Your task to perform on an android device: open app "Mercado Libre" (install if not already installed) Image 0: 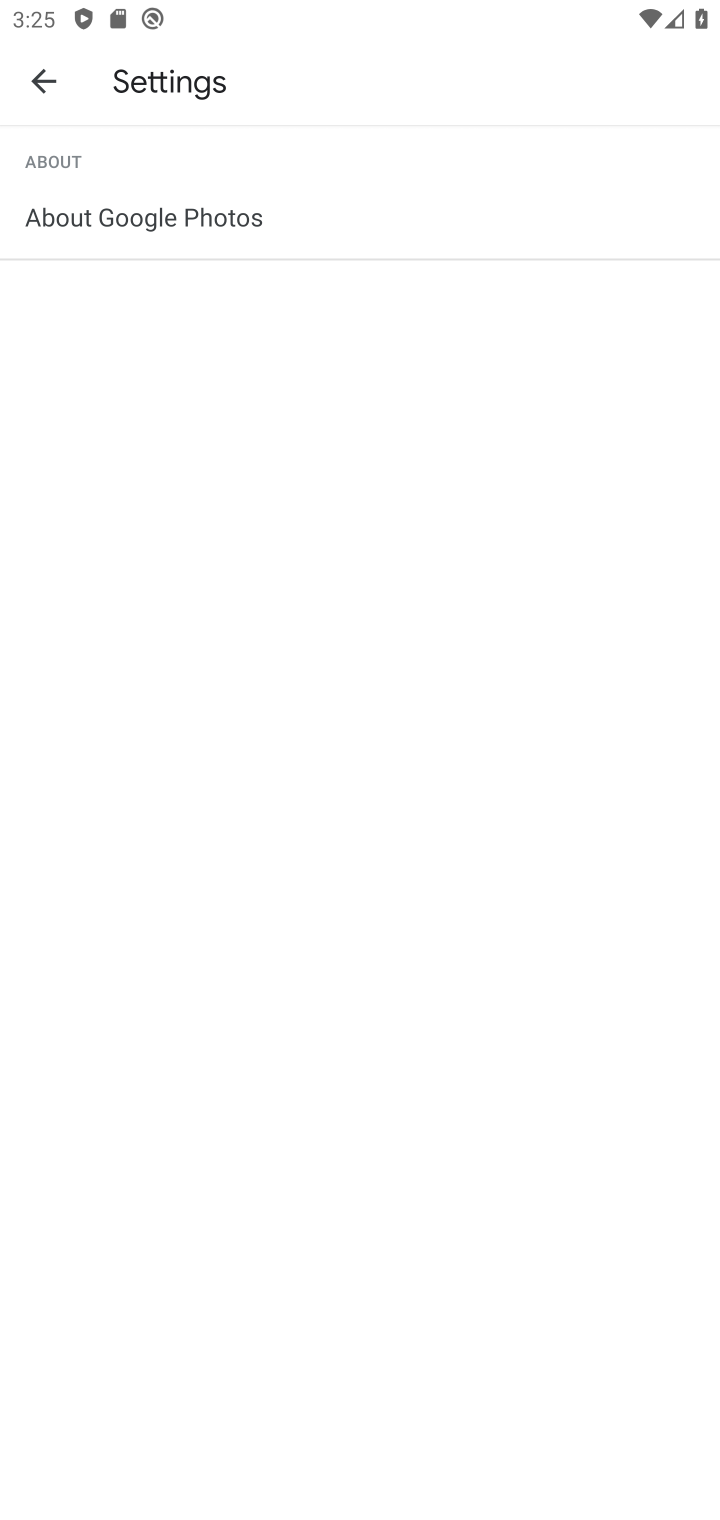
Step 0: press home button
Your task to perform on an android device: open app "Mercado Libre" (install if not already installed) Image 1: 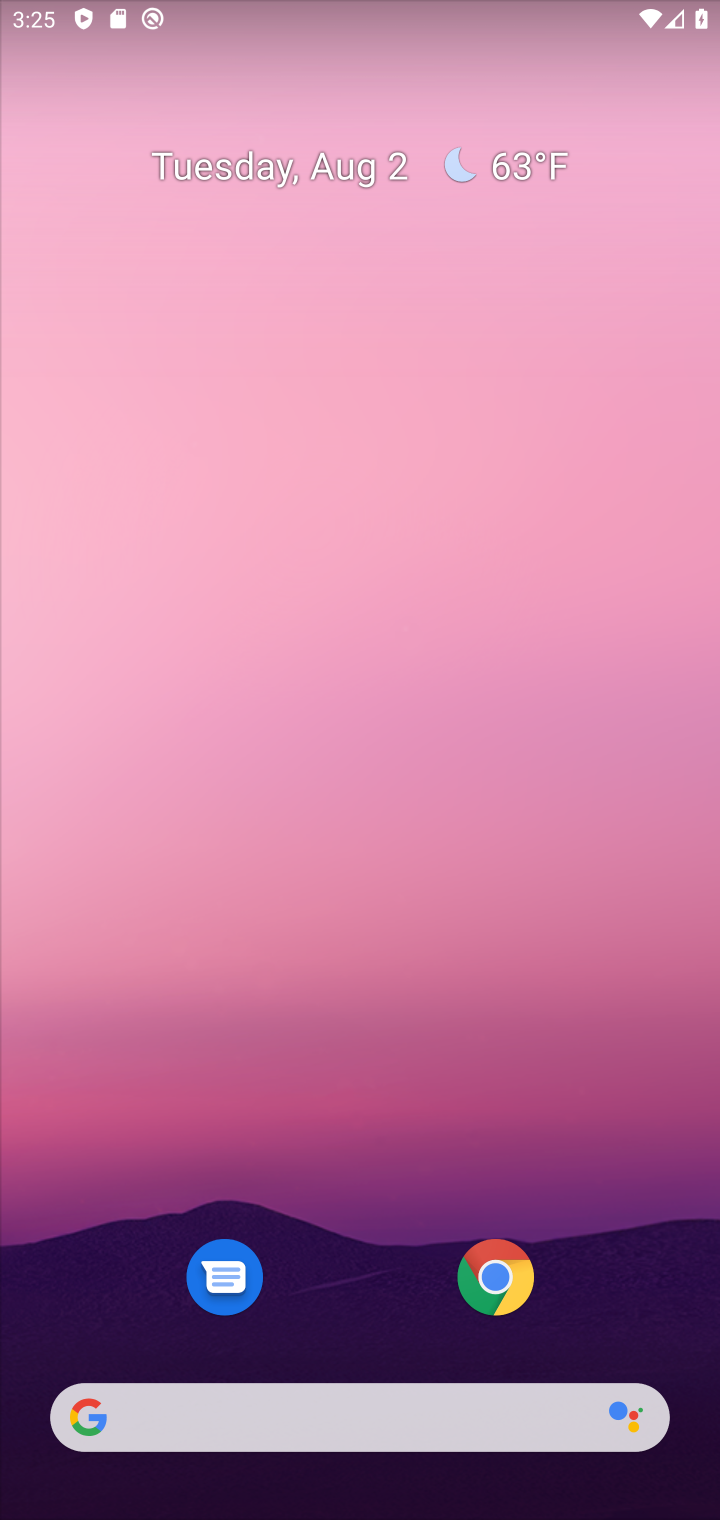
Step 1: drag from (633, 1222) to (600, 45)
Your task to perform on an android device: open app "Mercado Libre" (install if not already installed) Image 2: 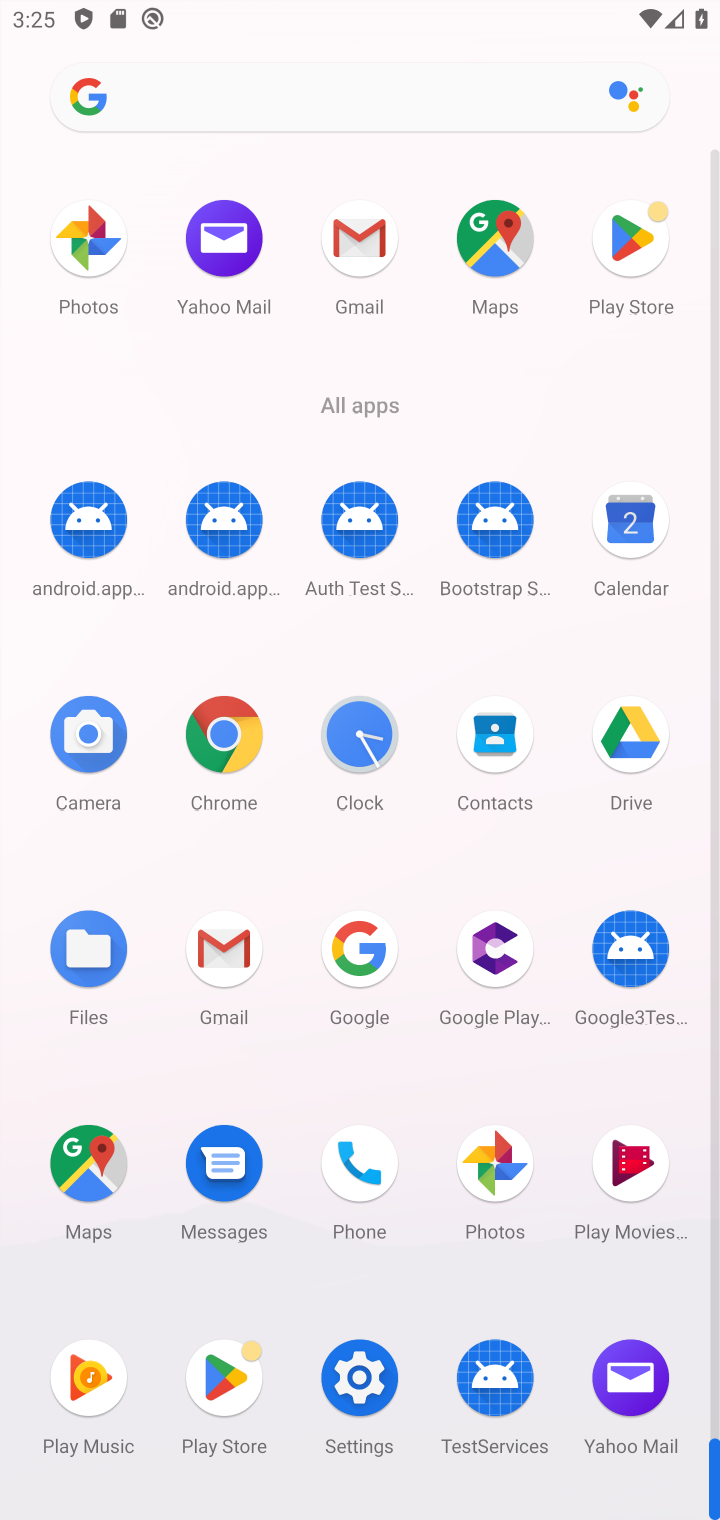
Step 2: click (221, 1352)
Your task to perform on an android device: open app "Mercado Libre" (install if not already installed) Image 3: 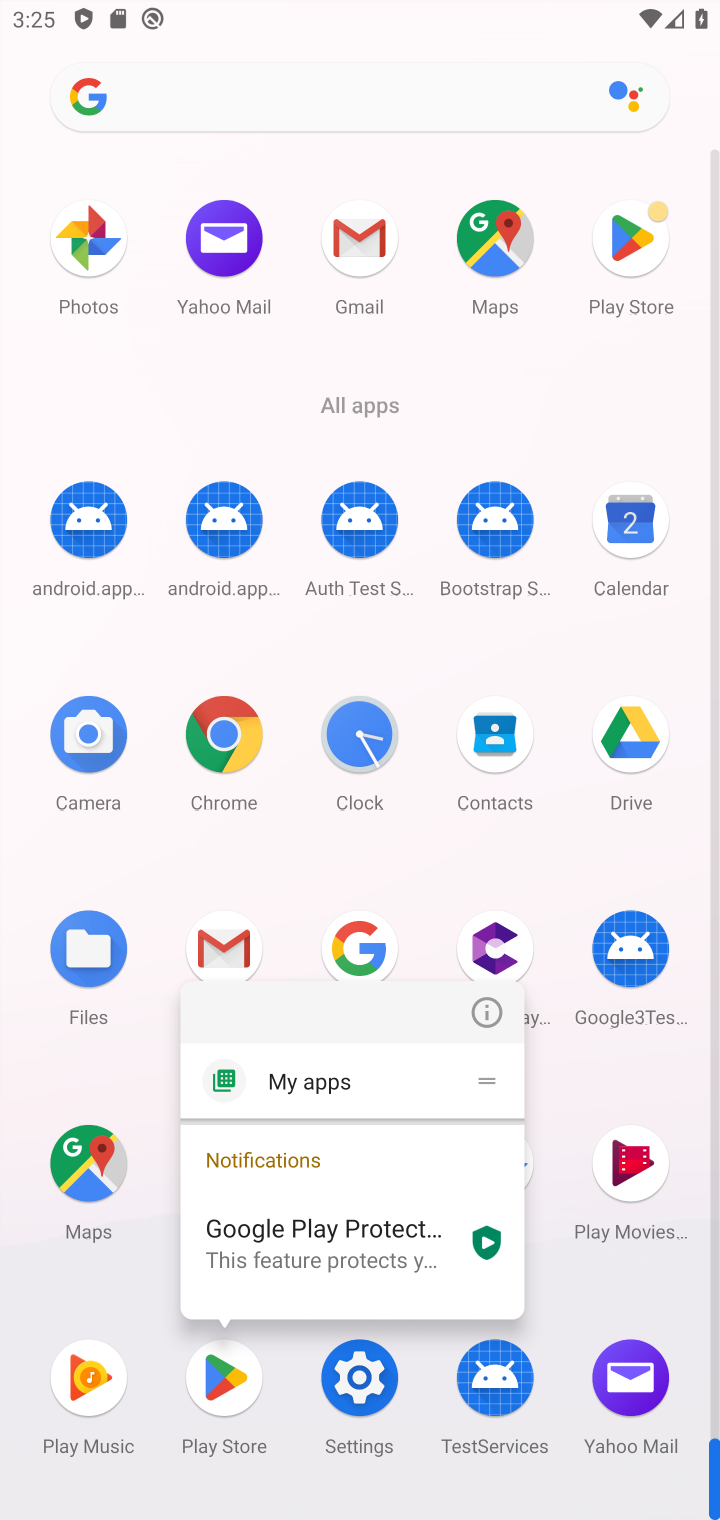
Step 3: click (214, 1392)
Your task to perform on an android device: open app "Mercado Libre" (install if not already installed) Image 4: 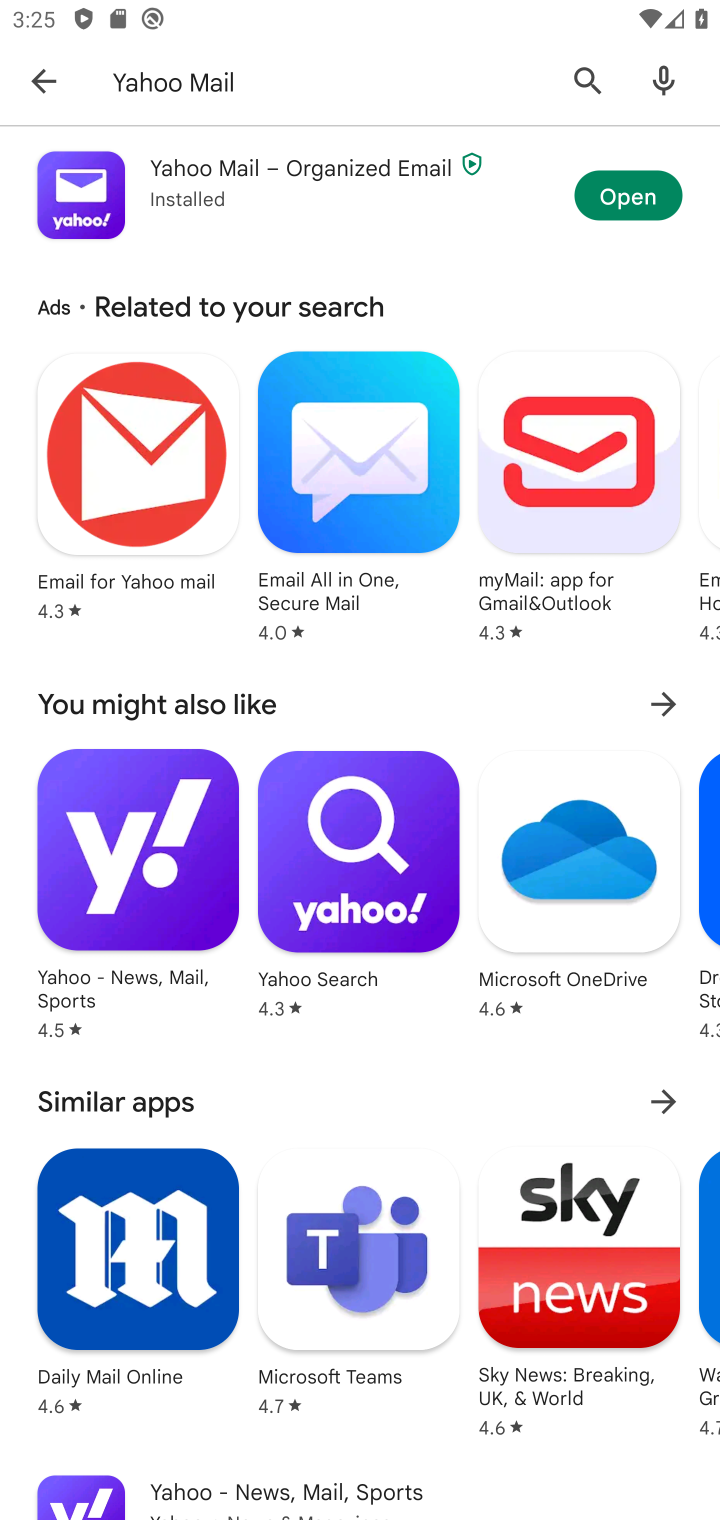
Step 4: click (327, 73)
Your task to perform on an android device: open app "Mercado Libre" (install if not already installed) Image 5: 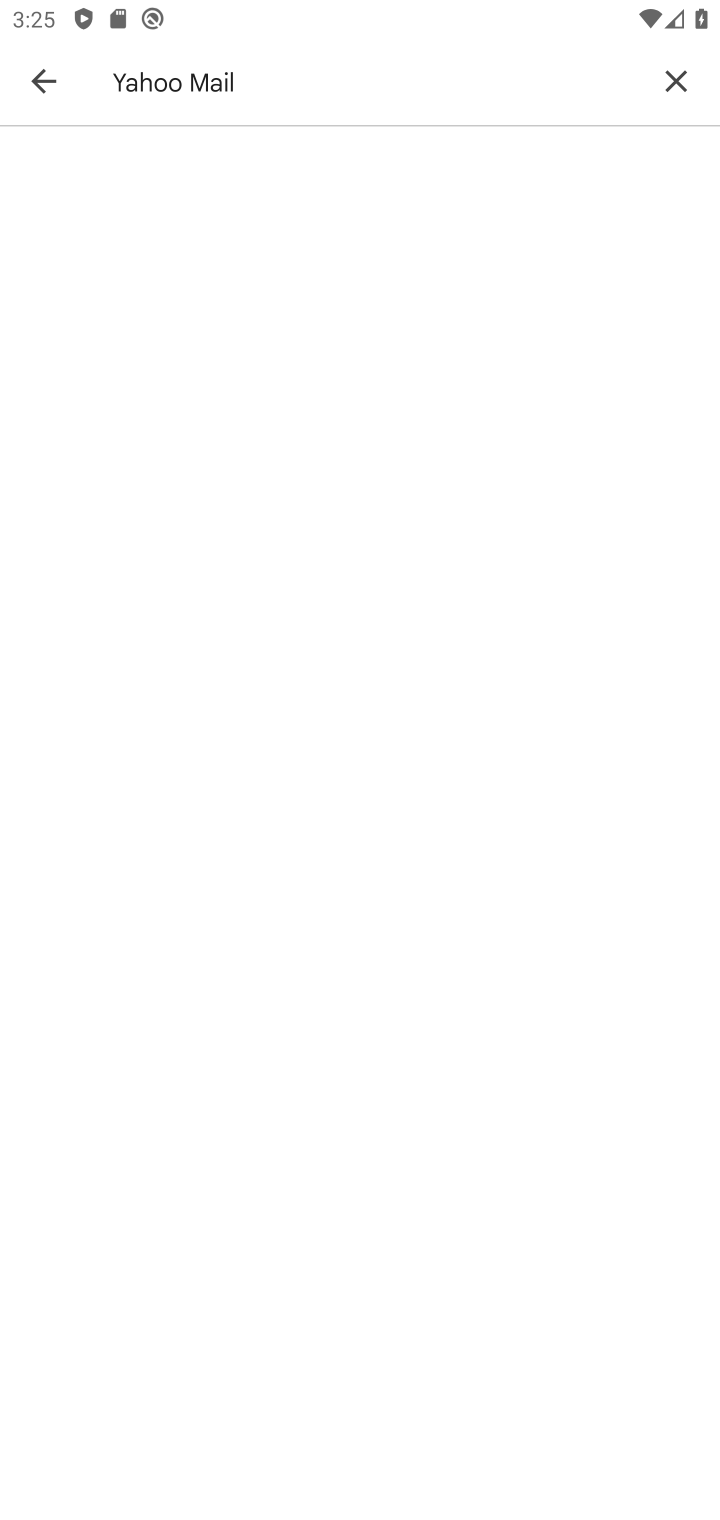
Step 5: click (668, 74)
Your task to perform on an android device: open app "Mercado Libre" (install if not already installed) Image 6: 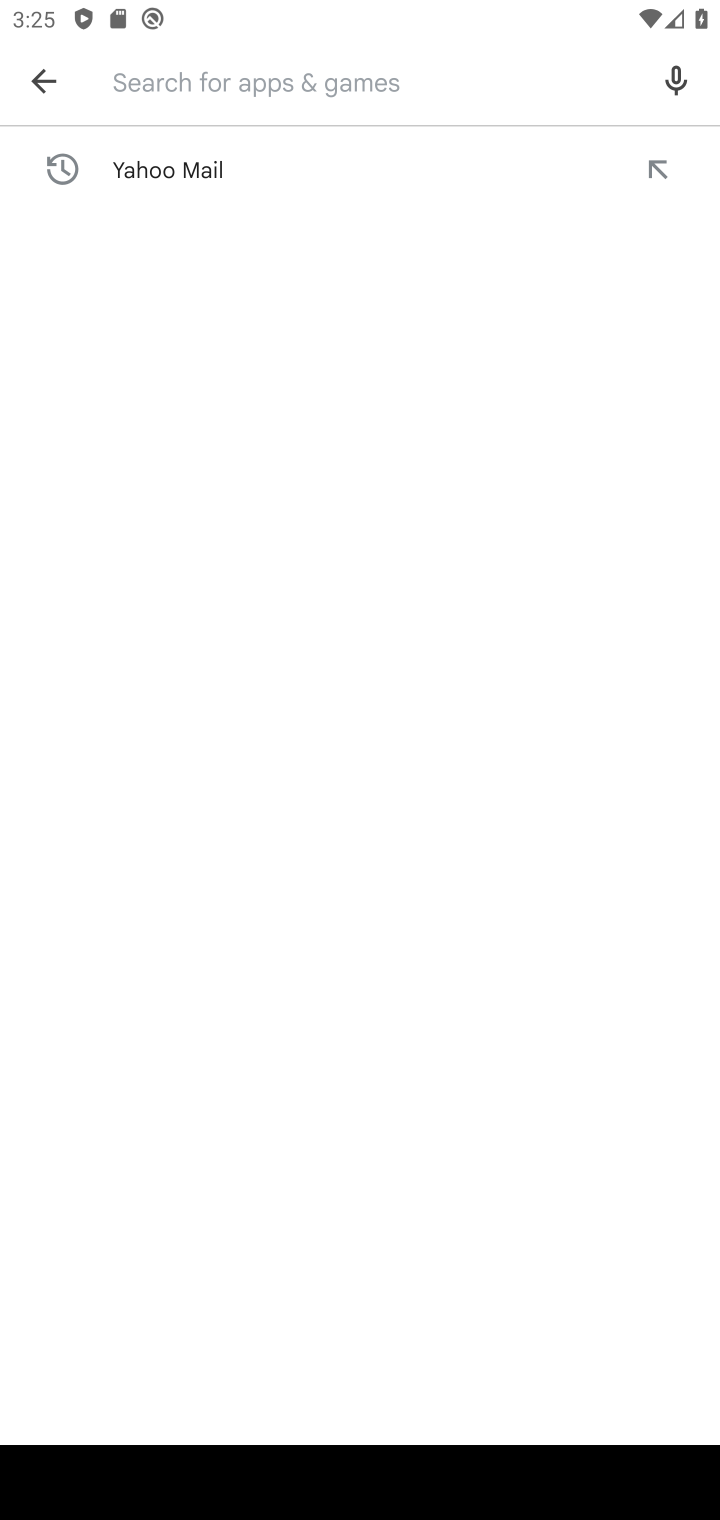
Step 6: type "Mercado Libre"
Your task to perform on an android device: open app "Mercado Libre" (install if not already installed) Image 7: 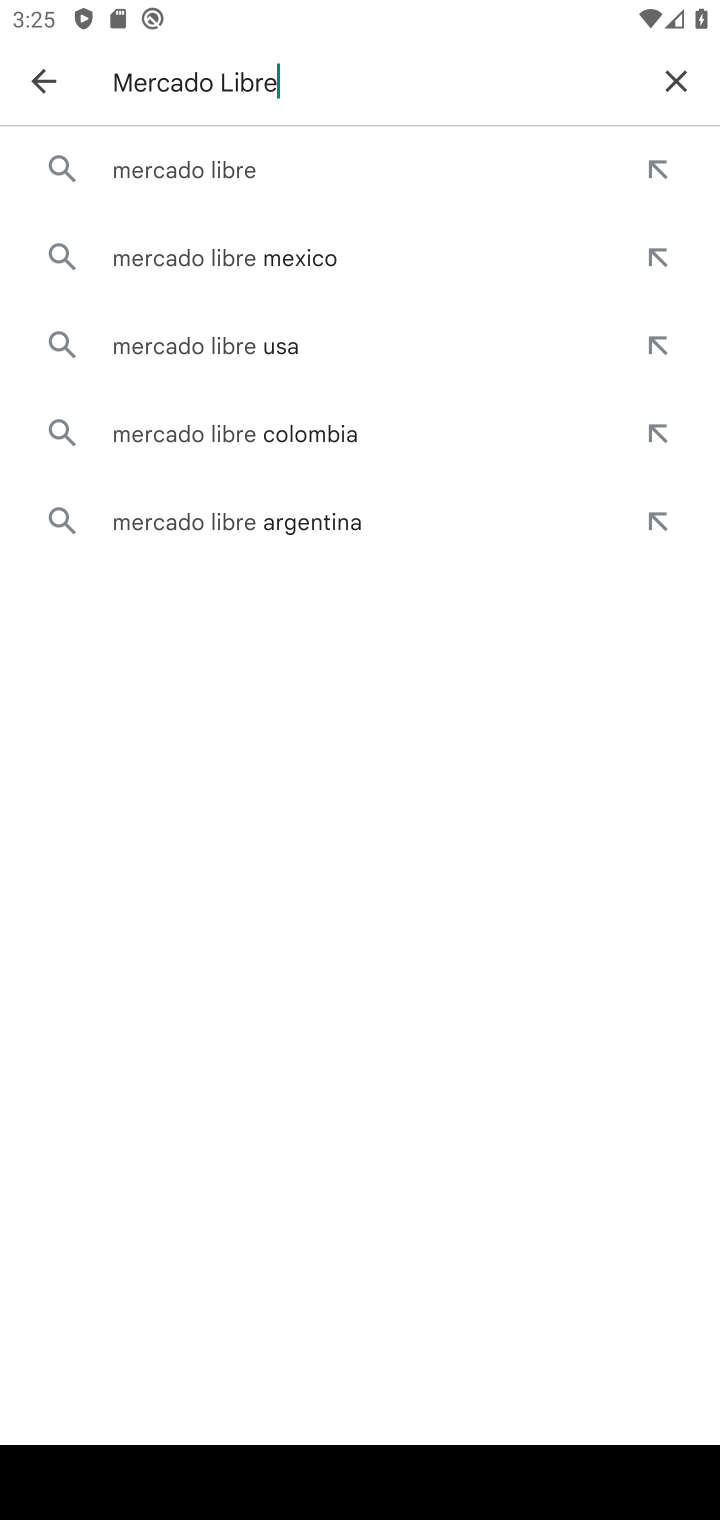
Step 7: press enter
Your task to perform on an android device: open app "Mercado Libre" (install if not already installed) Image 8: 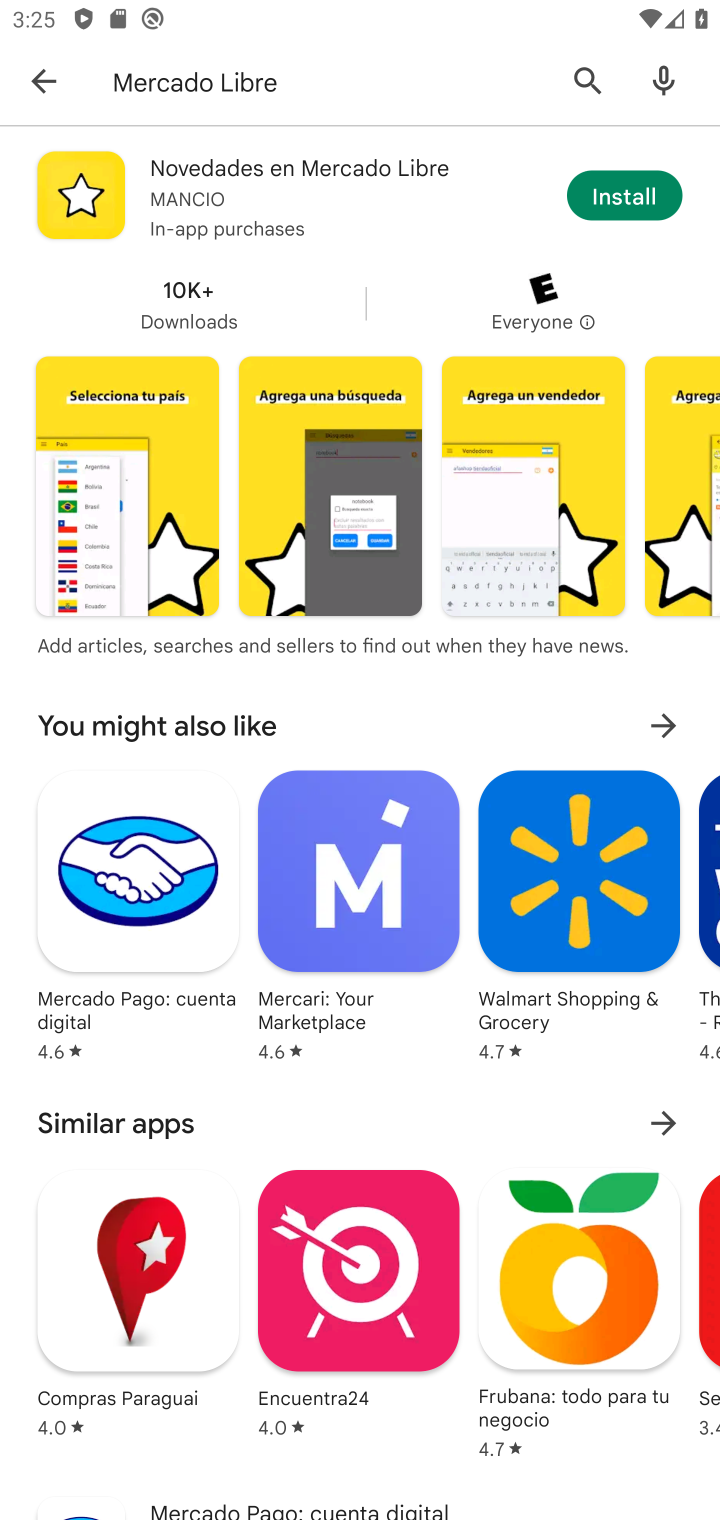
Step 8: click (614, 193)
Your task to perform on an android device: open app "Mercado Libre" (install if not already installed) Image 9: 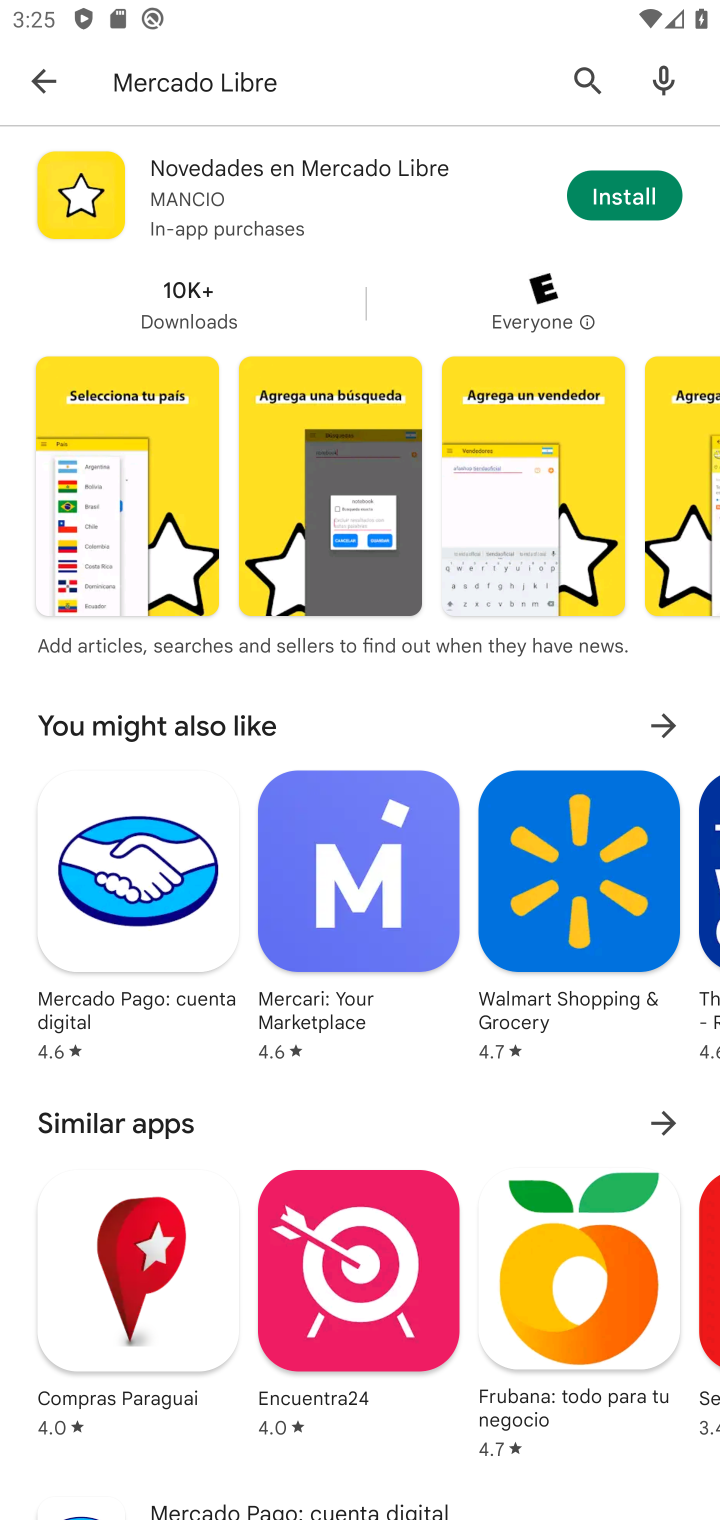
Step 9: click (614, 193)
Your task to perform on an android device: open app "Mercado Libre" (install if not already installed) Image 10: 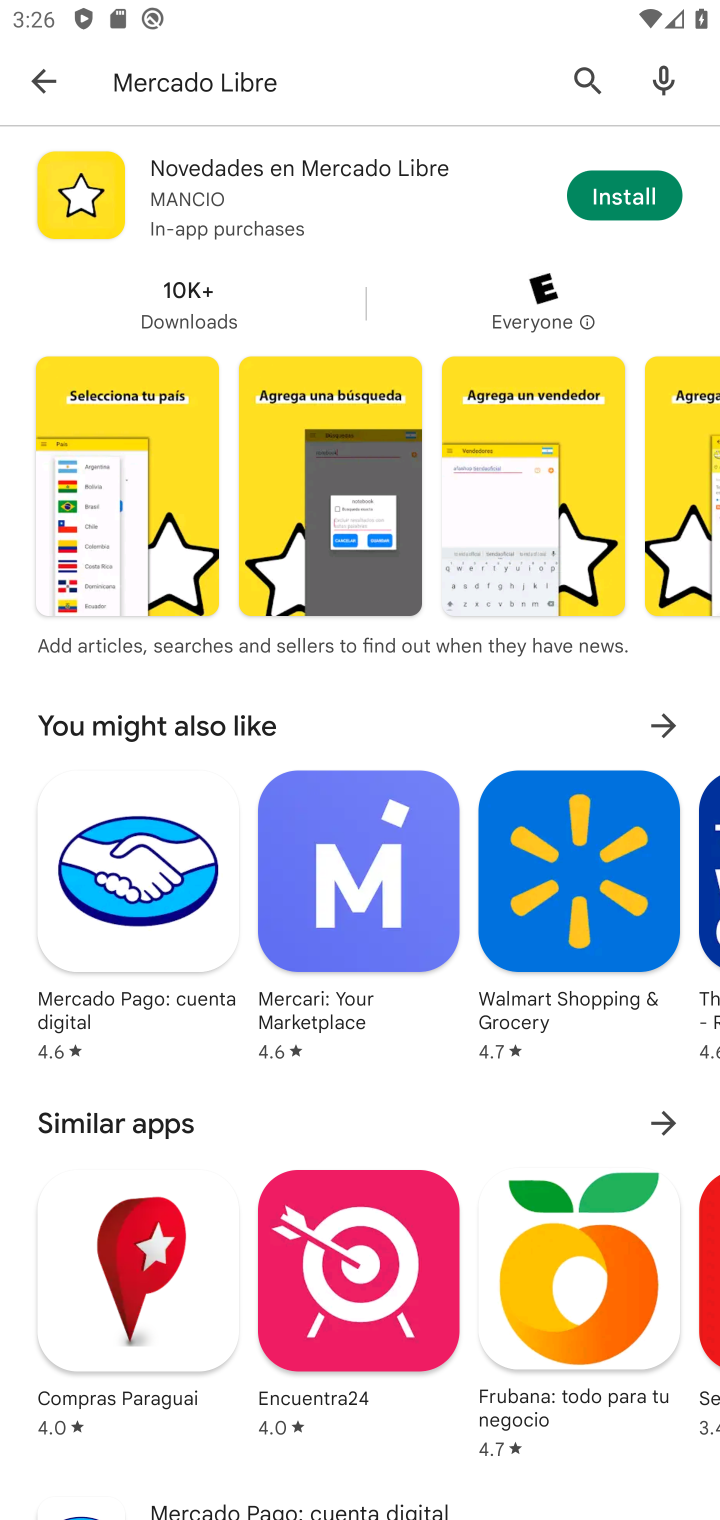
Step 10: click (621, 192)
Your task to perform on an android device: open app "Mercado Libre" (install if not already installed) Image 11: 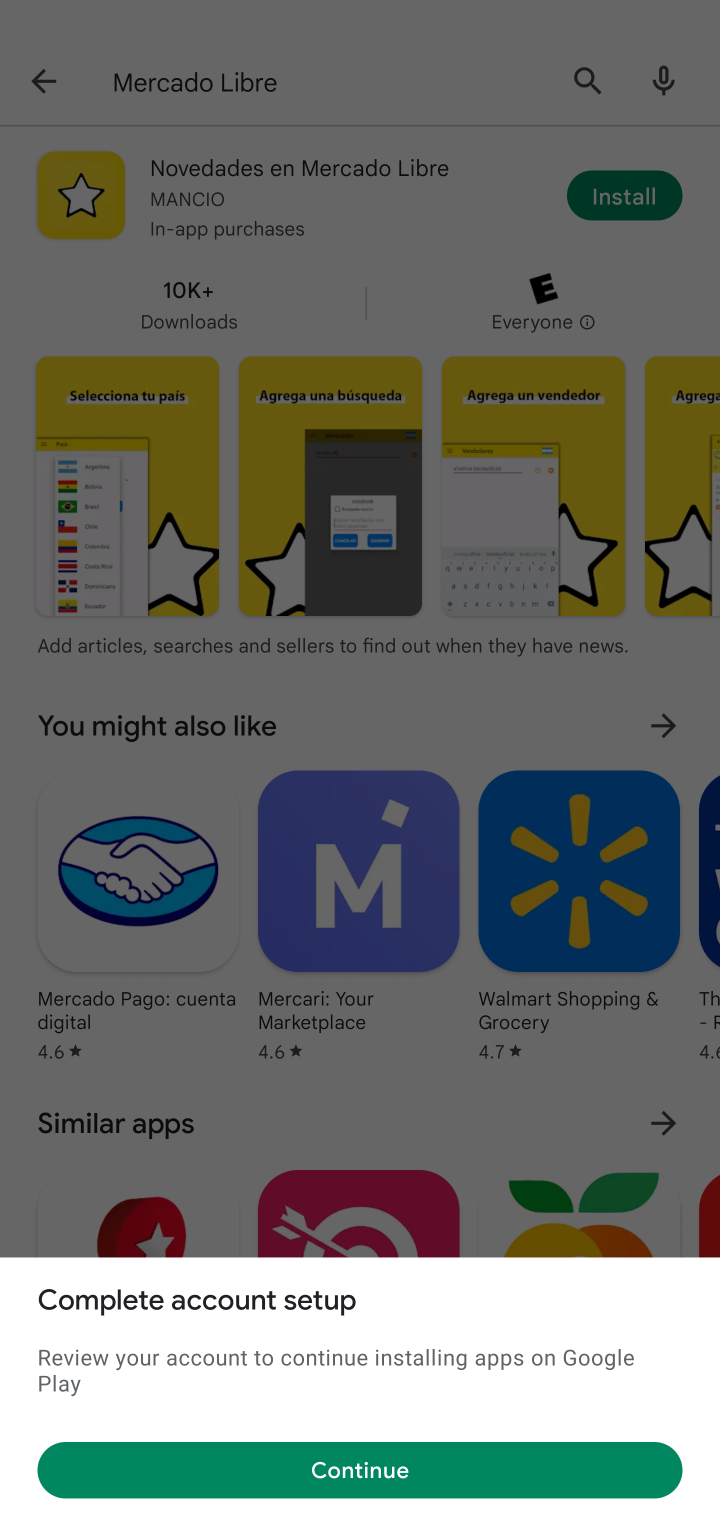
Step 11: click (518, 1479)
Your task to perform on an android device: open app "Mercado Libre" (install if not already installed) Image 12: 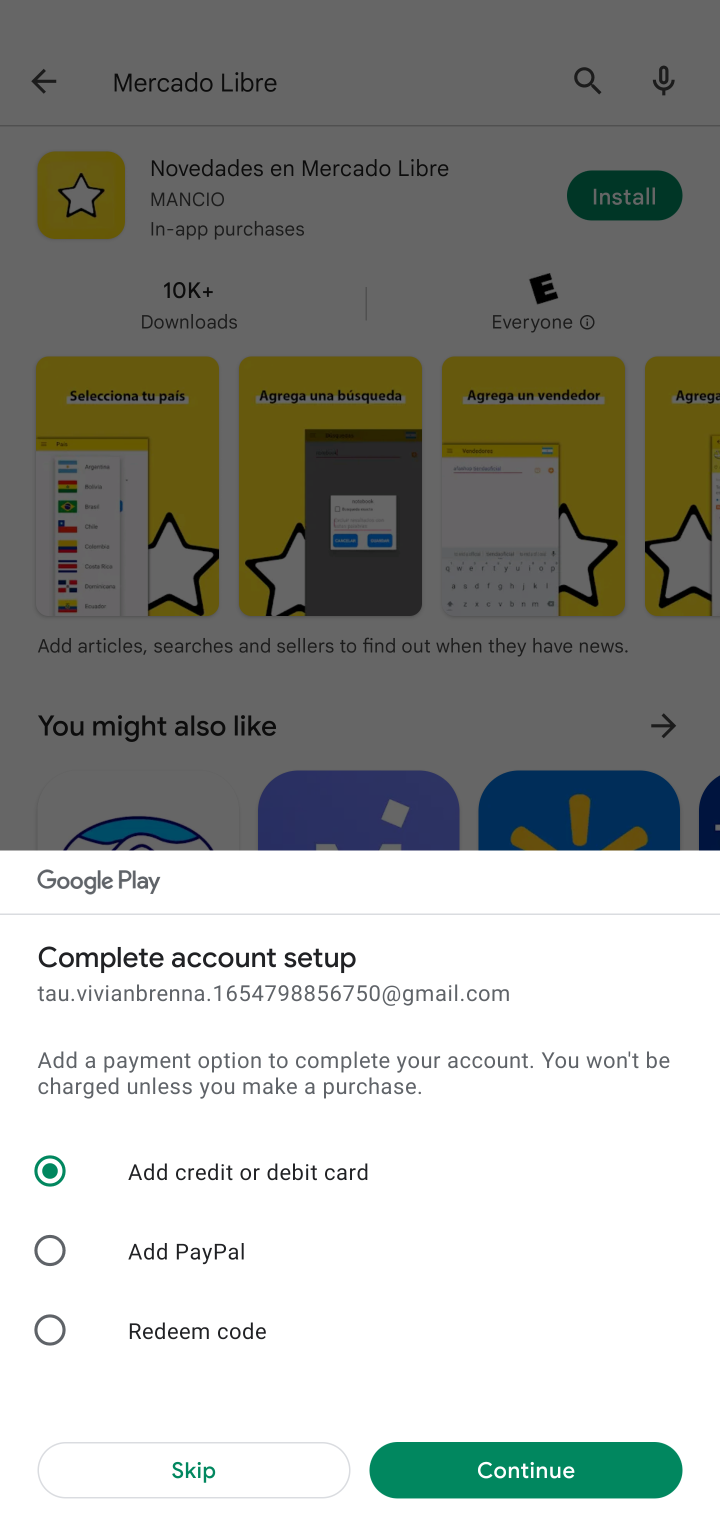
Step 12: click (228, 1465)
Your task to perform on an android device: open app "Mercado Libre" (install if not already installed) Image 13: 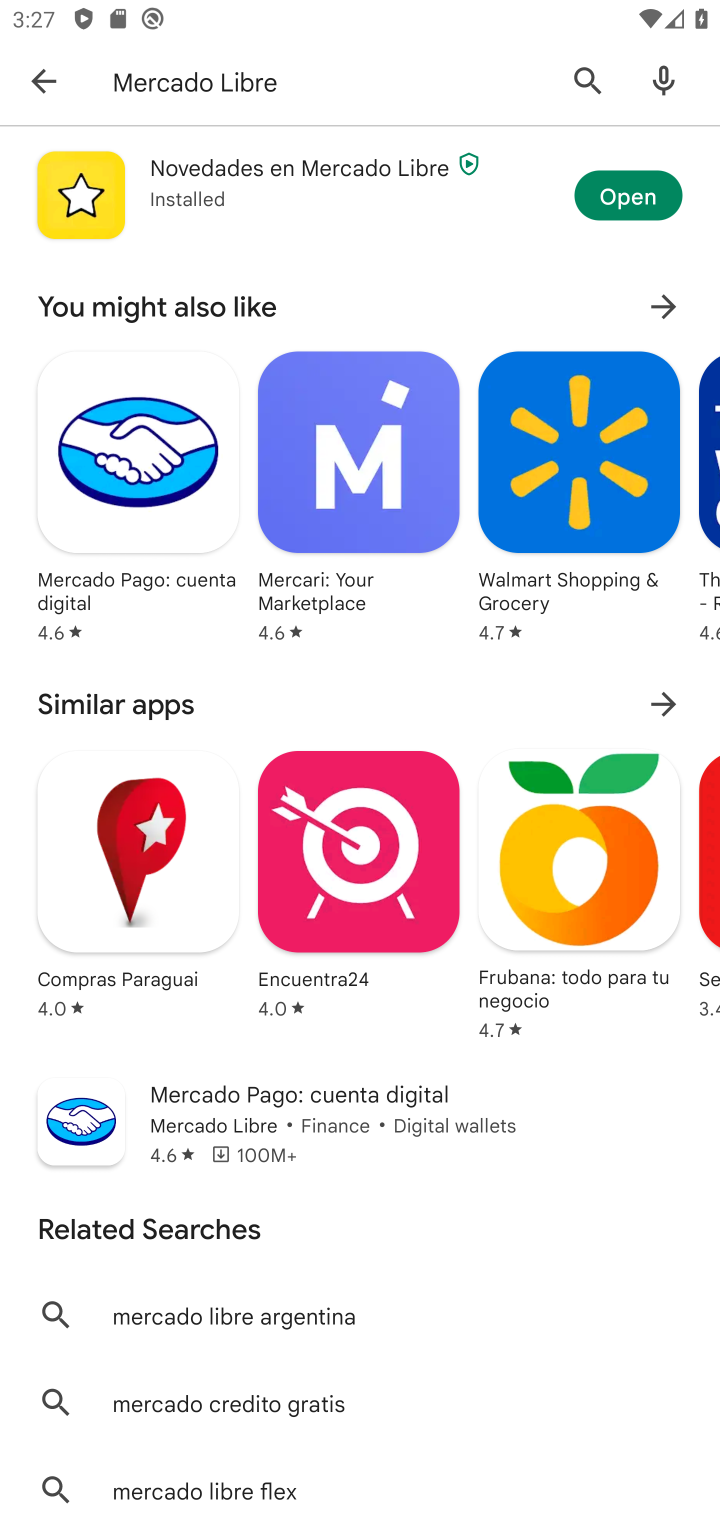
Step 13: click (619, 195)
Your task to perform on an android device: open app "Mercado Libre" (install if not already installed) Image 14: 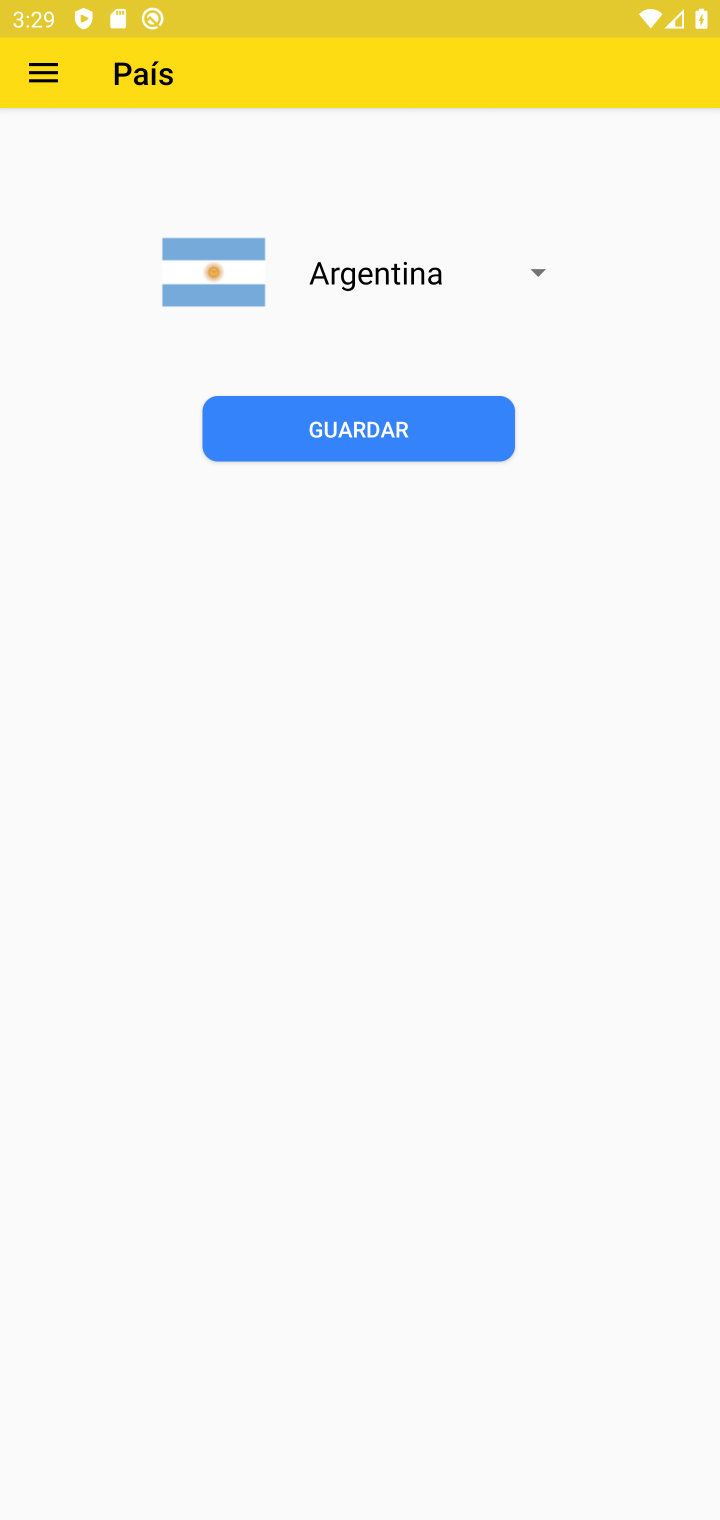
Step 14: task complete